Your task to perform on an android device: change the clock display to show seconds Image 0: 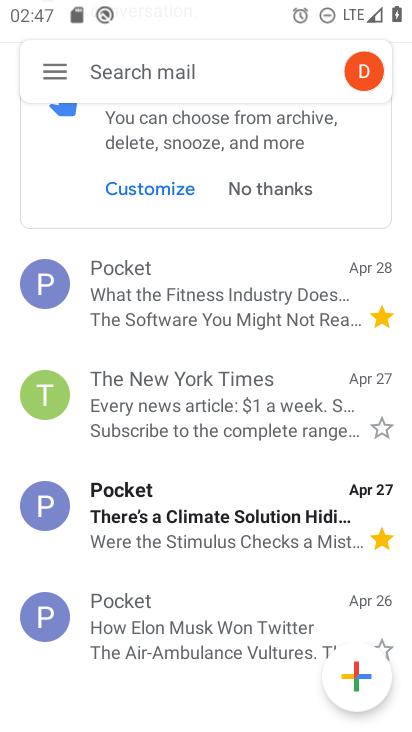
Step 0: press home button
Your task to perform on an android device: change the clock display to show seconds Image 1: 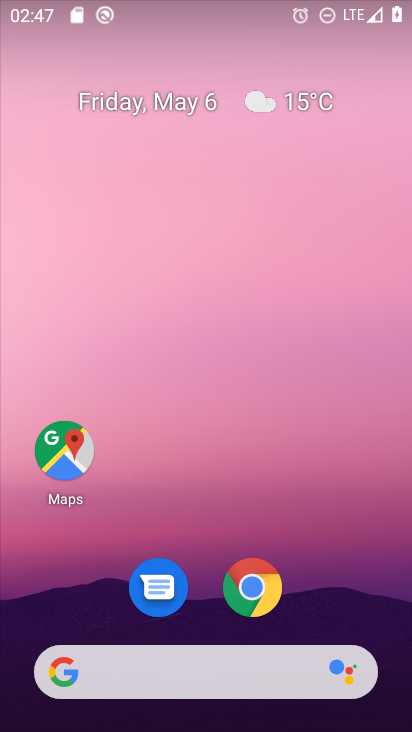
Step 1: drag from (328, 349) to (238, 21)
Your task to perform on an android device: change the clock display to show seconds Image 2: 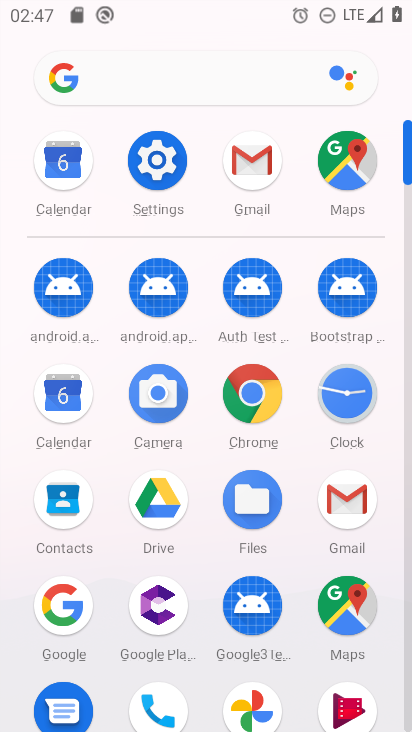
Step 2: click (343, 395)
Your task to perform on an android device: change the clock display to show seconds Image 3: 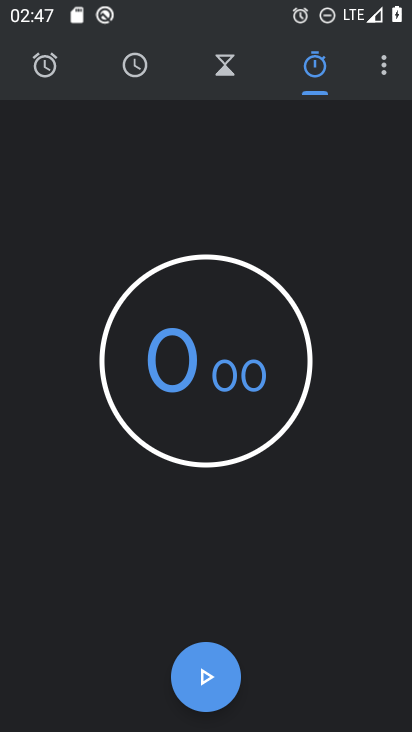
Step 3: click (389, 68)
Your task to perform on an android device: change the clock display to show seconds Image 4: 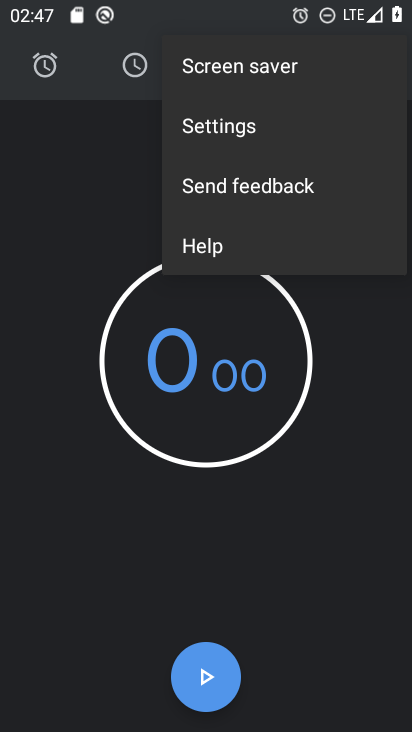
Step 4: click (231, 131)
Your task to perform on an android device: change the clock display to show seconds Image 5: 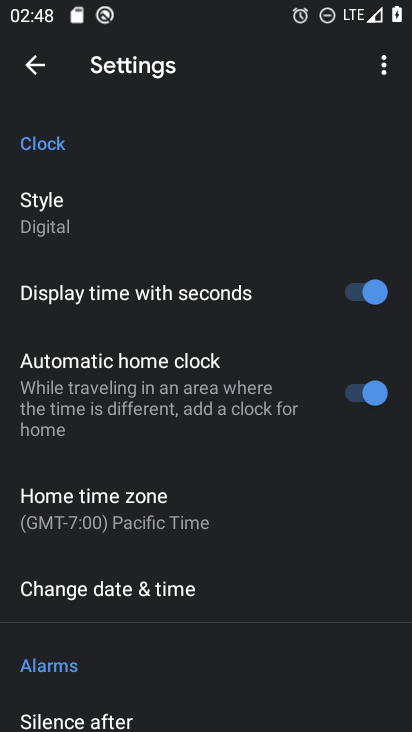
Step 5: task complete